Your task to perform on an android device: see creations saved in the google photos Image 0: 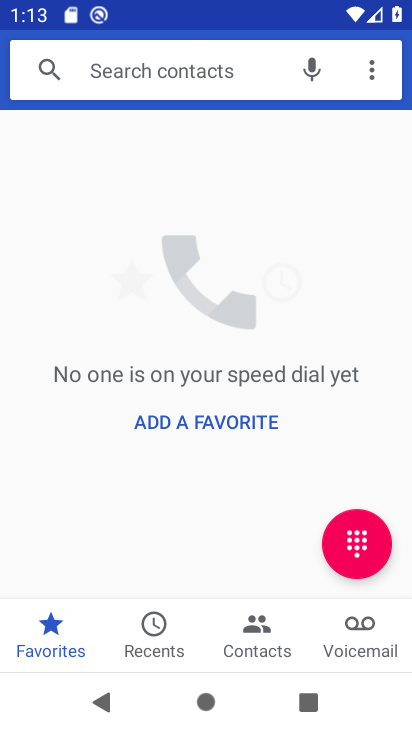
Step 0: drag from (292, 189) to (412, 165)
Your task to perform on an android device: see creations saved in the google photos Image 1: 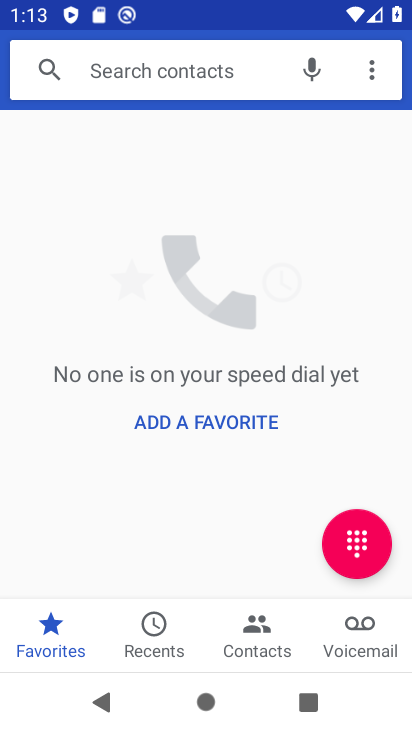
Step 1: press home button
Your task to perform on an android device: see creations saved in the google photos Image 2: 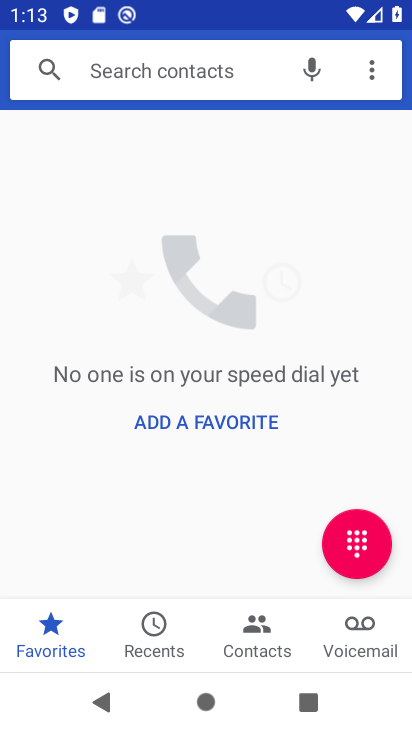
Step 2: press home button
Your task to perform on an android device: see creations saved in the google photos Image 3: 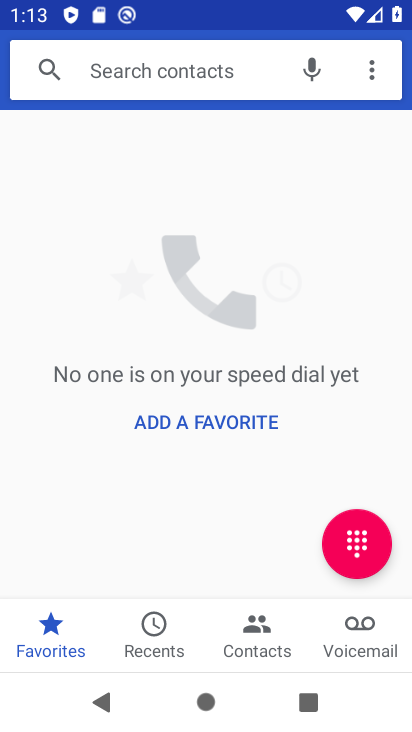
Step 3: click (247, 89)
Your task to perform on an android device: see creations saved in the google photos Image 4: 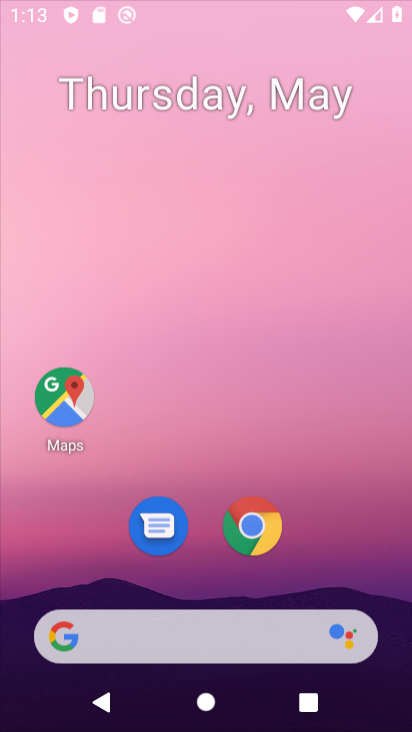
Step 4: drag from (245, 330) to (270, 148)
Your task to perform on an android device: see creations saved in the google photos Image 5: 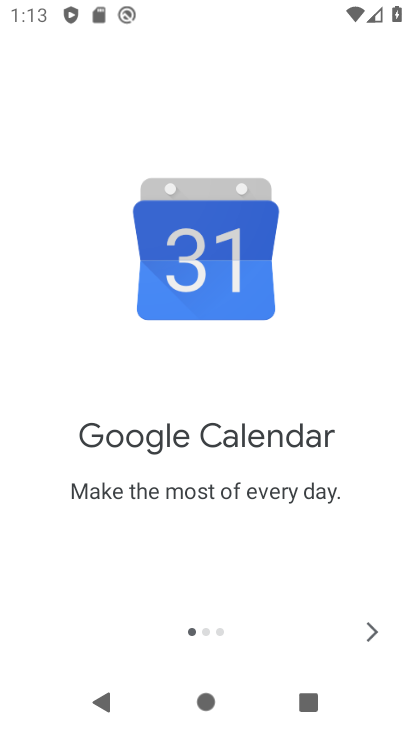
Step 5: press home button
Your task to perform on an android device: see creations saved in the google photos Image 6: 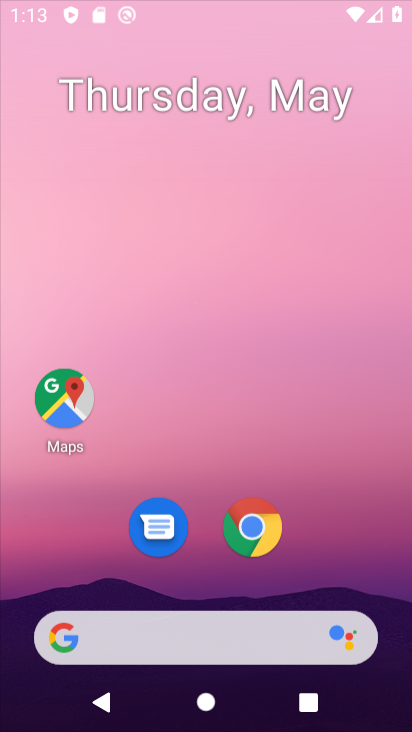
Step 6: drag from (201, 563) to (233, 166)
Your task to perform on an android device: see creations saved in the google photos Image 7: 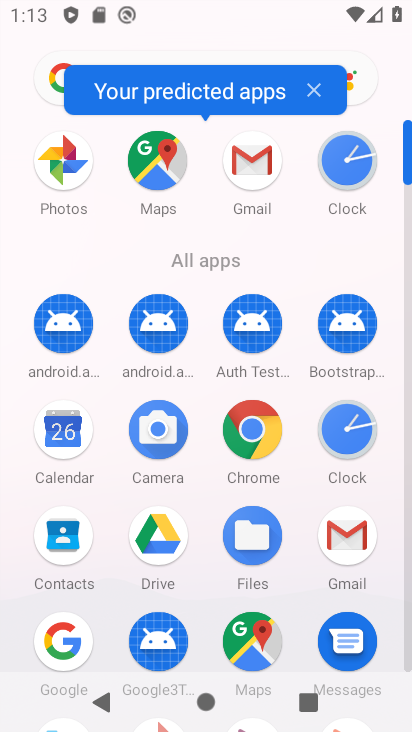
Step 7: drag from (201, 587) to (202, 255)
Your task to perform on an android device: see creations saved in the google photos Image 8: 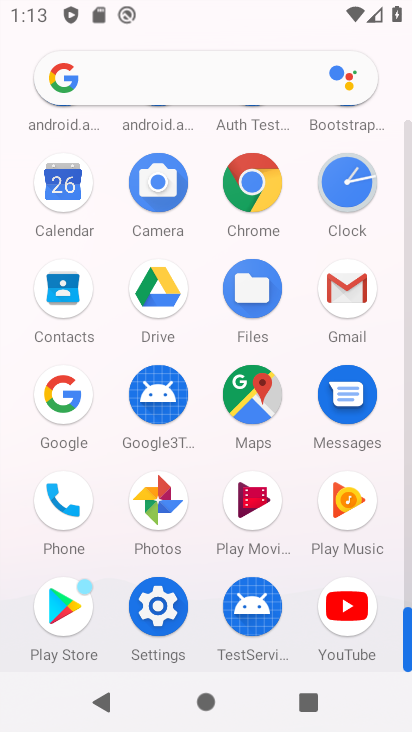
Step 8: click (157, 491)
Your task to perform on an android device: see creations saved in the google photos Image 9: 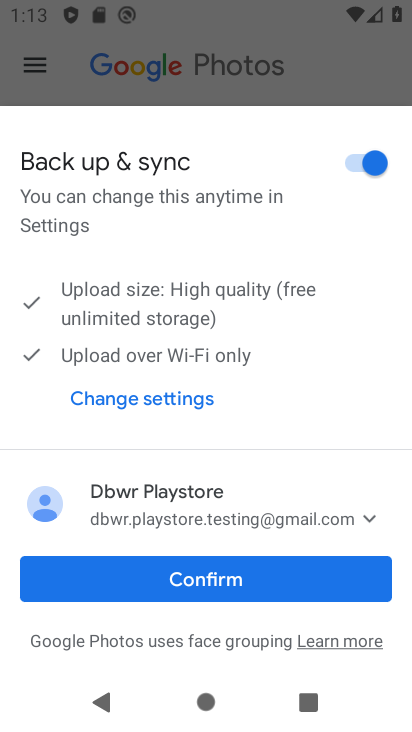
Step 9: click (31, 66)
Your task to perform on an android device: see creations saved in the google photos Image 10: 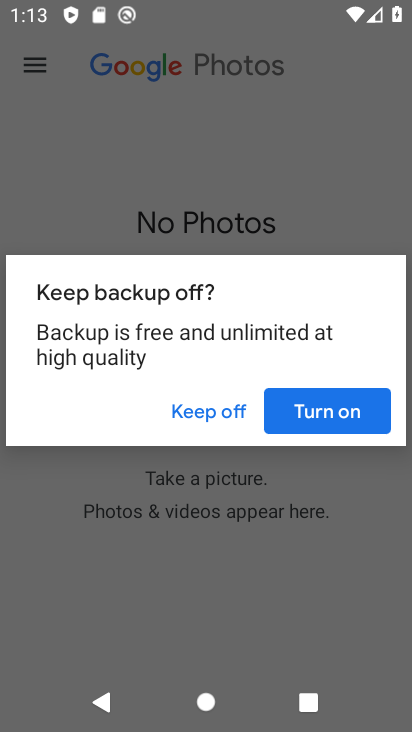
Step 10: click (330, 422)
Your task to perform on an android device: see creations saved in the google photos Image 11: 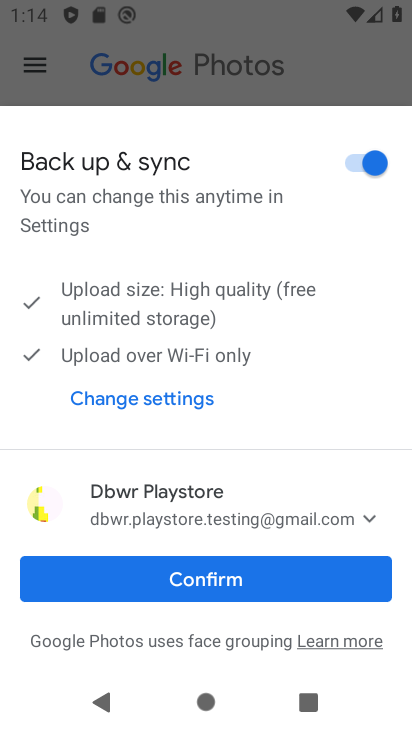
Step 11: click (209, 623)
Your task to perform on an android device: see creations saved in the google photos Image 12: 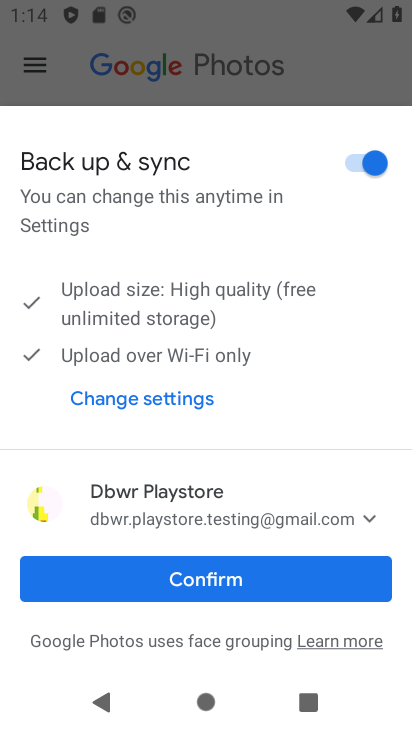
Step 12: click (191, 575)
Your task to perform on an android device: see creations saved in the google photos Image 13: 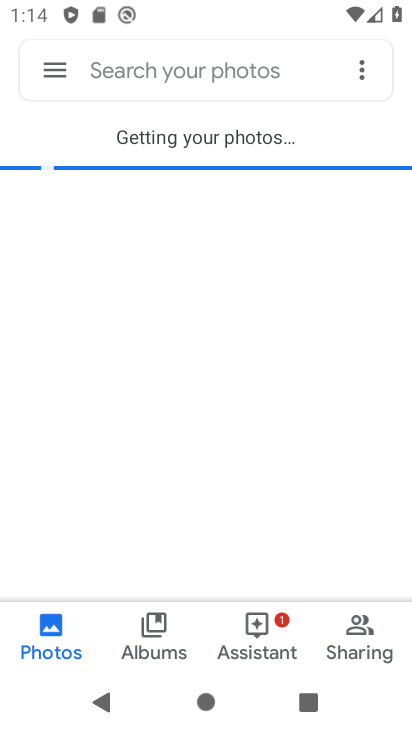
Step 13: click (184, 52)
Your task to perform on an android device: see creations saved in the google photos Image 14: 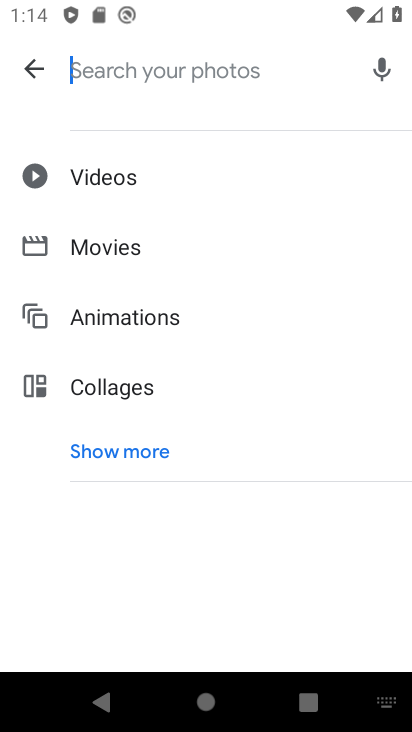
Step 14: click (108, 466)
Your task to perform on an android device: see creations saved in the google photos Image 15: 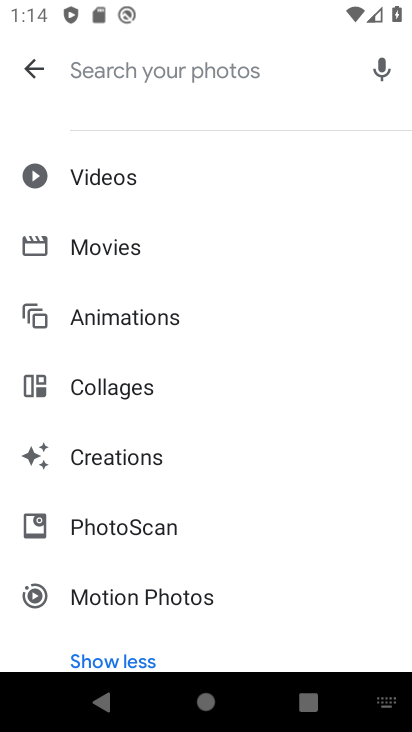
Step 15: click (130, 452)
Your task to perform on an android device: see creations saved in the google photos Image 16: 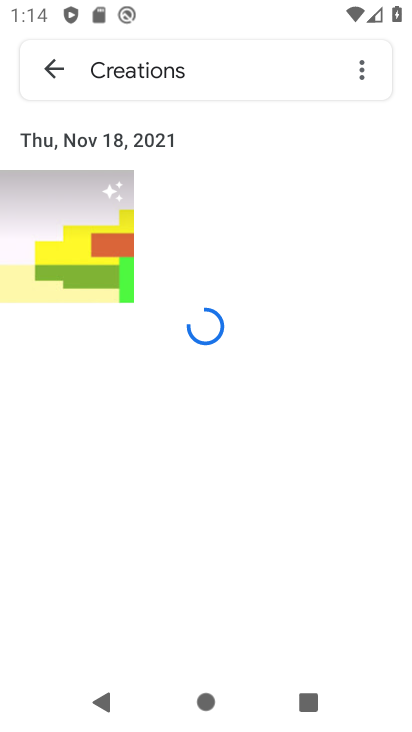
Step 16: click (90, 247)
Your task to perform on an android device: see creations saved in the google photos Image 17: 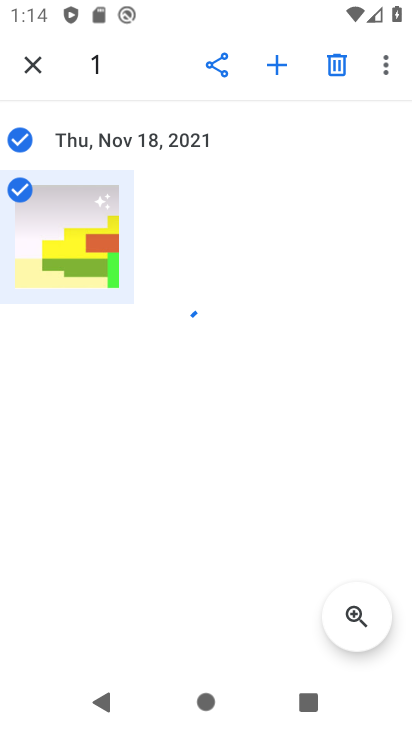
Step 17: click (39, 62)
Your task to perform on an android device: see creations saved in the google photos Image 18: 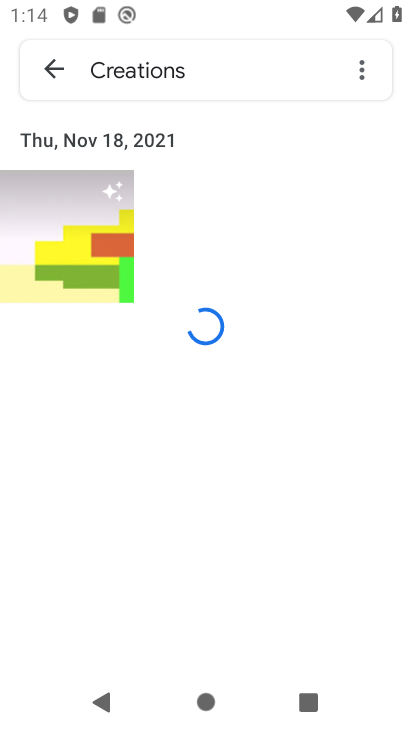
Step 18: click (75, 222)
Your task to perform on an android device: see creations saved in the google photos Image 19: 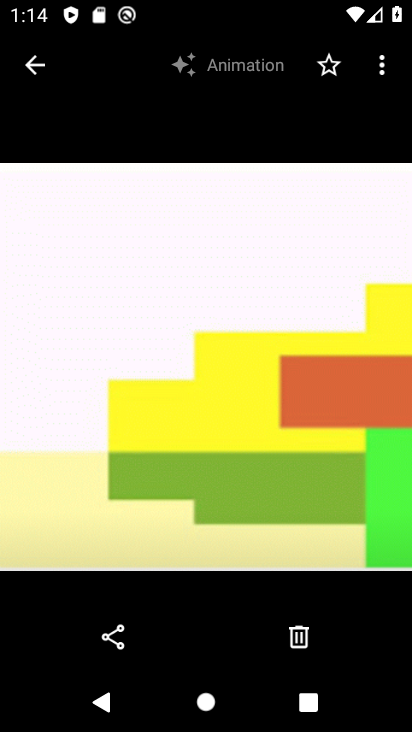
Step 19: task complete